Your task to perform on an android device: allow notifications from all sites in the chrome app Image 0: 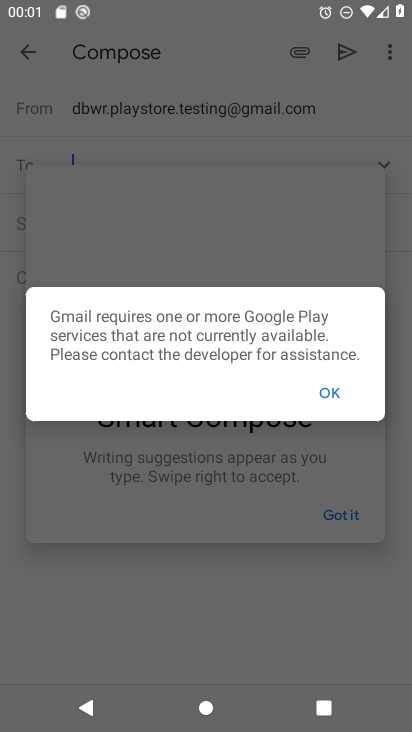
Step 0: press home button
Your task to perform on an android device: allow notifications from all sites in the chrome app Image 1: 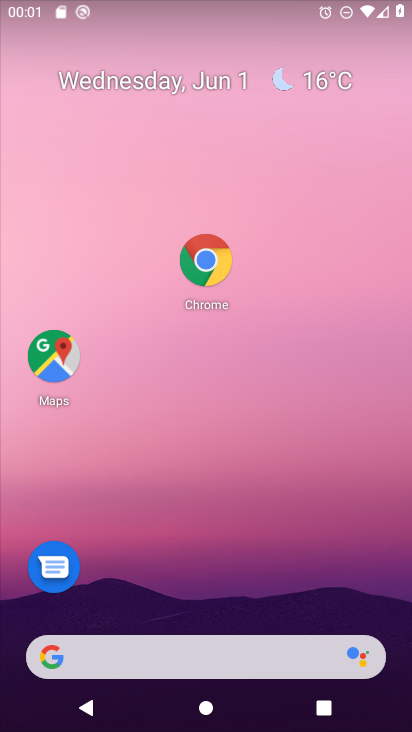
Step 1: drag from (200, 635) to (166, 293)
Your task to perform on an android device: allow notifications from all sites in the chrome app Image 2: 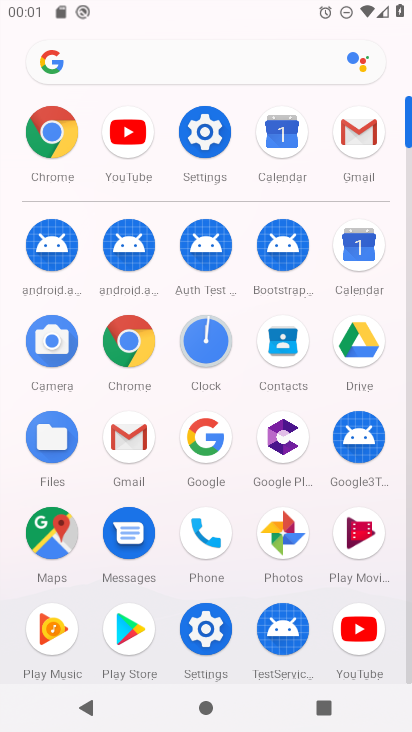
Step 2: click (58, 127)
Your task to perform on an android device: allow notifications from all sites in the chrome app Image 3: 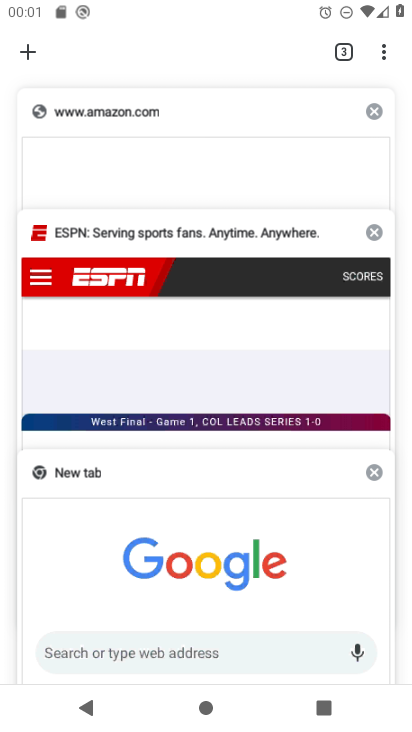
Step 3: click (386, 45)
Your task to perform on an android device: allow notifications from all sites in the chrome app Image 4: 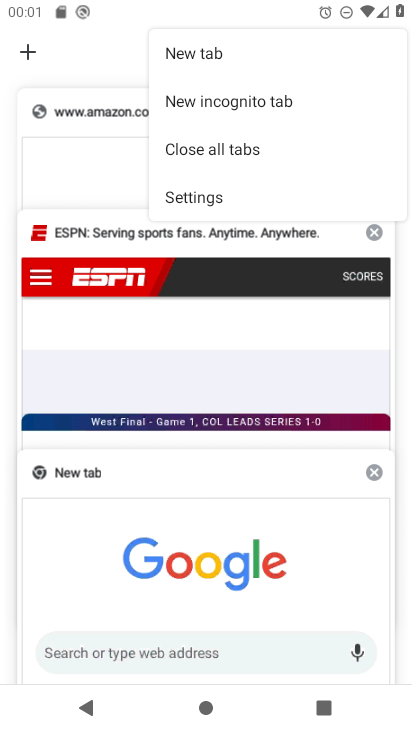
Step 4: click (186, 199)
Your task to perform on an android device: allow notifications from all sites in the chrome app Image 5: 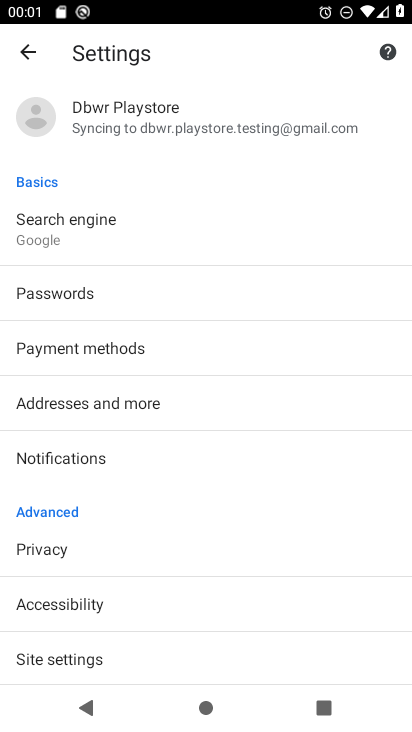
Step 5: click (59, 665)
Your task to perform on an android device: allow notifications from all sites in the chrome app Image 6: 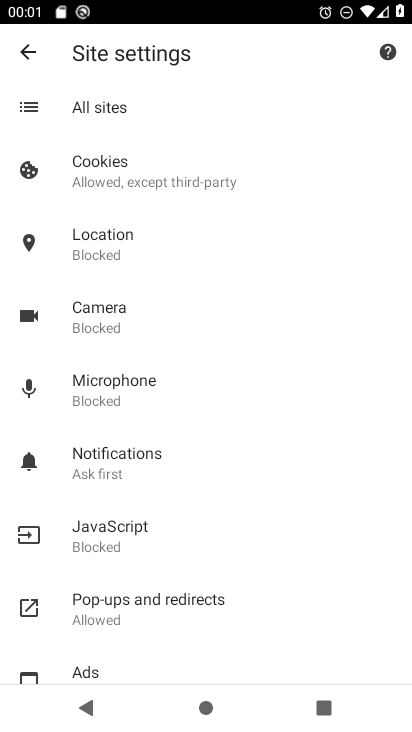
Step 6: click (101, 460)
Your task to perform on an android device: allow notifications from all sites in the chrome app Image 7: 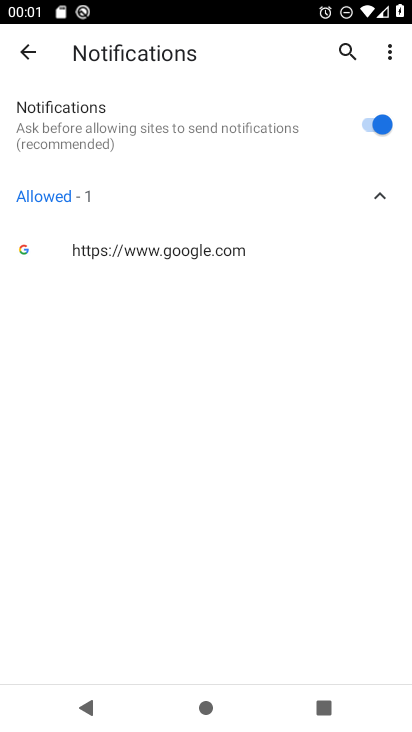
Step 7: task complete